Your task to perform on an android device: Turn on the flashlight Image 0: 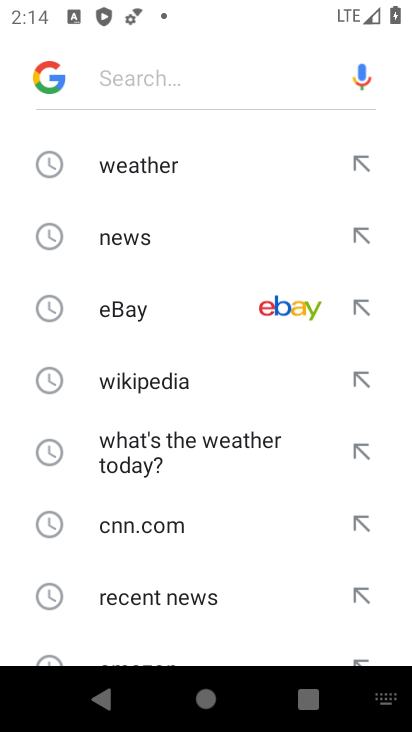
Step 0: drag from (229, 10) to (279, 622)
Your task to perform on an android device: Turn on the flashlight Image 1: 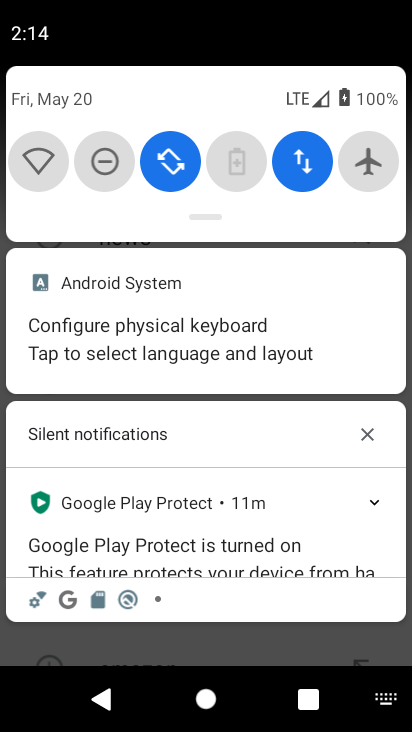
Step 1: drag from (209, 74) to (188, 675)
Your task to perform on an android device: Turn on the flashlight Image 2: 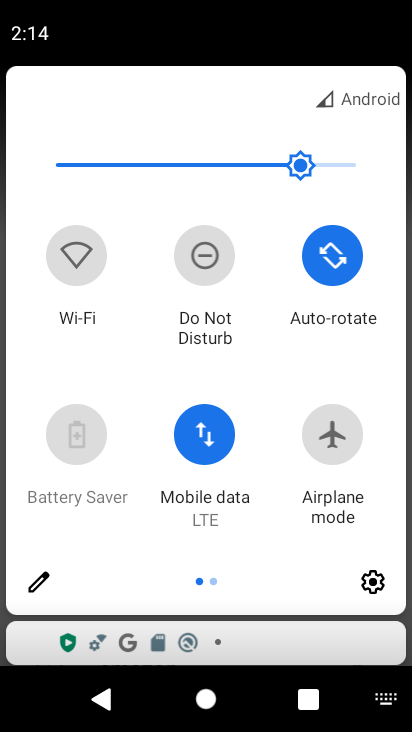
Step 2: click (377, 583)
Your task to perform on an android device: Turn on the flashlight Image 3: 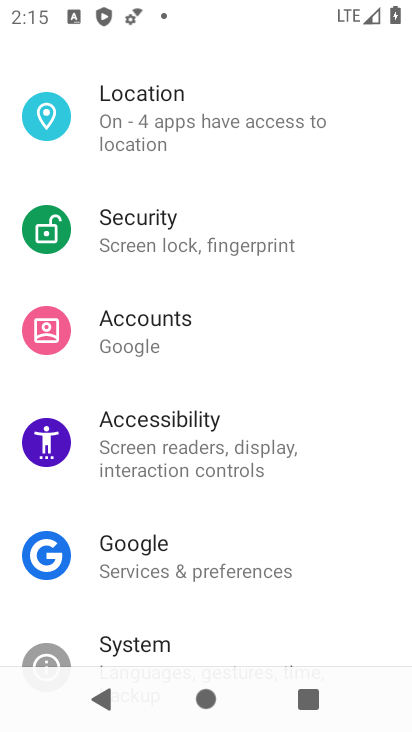
Step 3: task complete